Your task to perform on an android device: create a new album in the google photos Image 0: 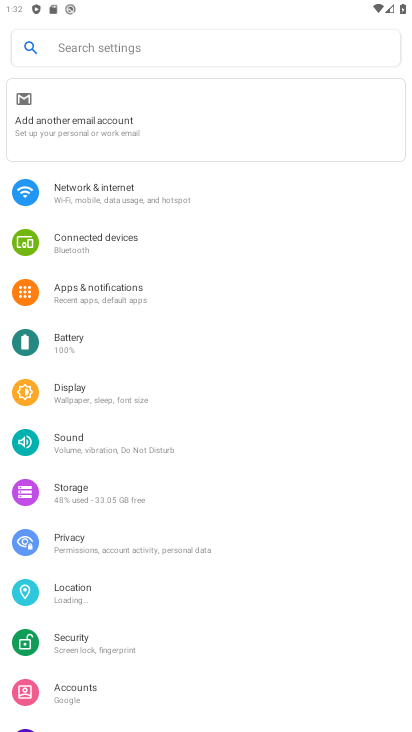
Step 0: press home button
Your task to perform on an android device: create a new album in the google photos Image 1: 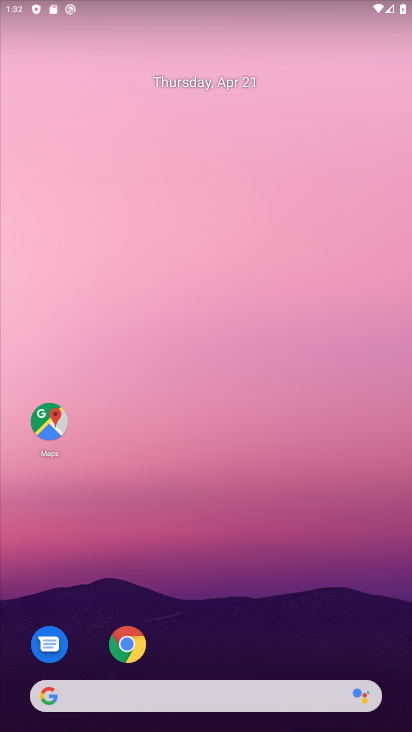
Step 1: drag from (279, 590) to (206, 94)
Your task to perform on an android device: create a new album in the google photos Image 2: 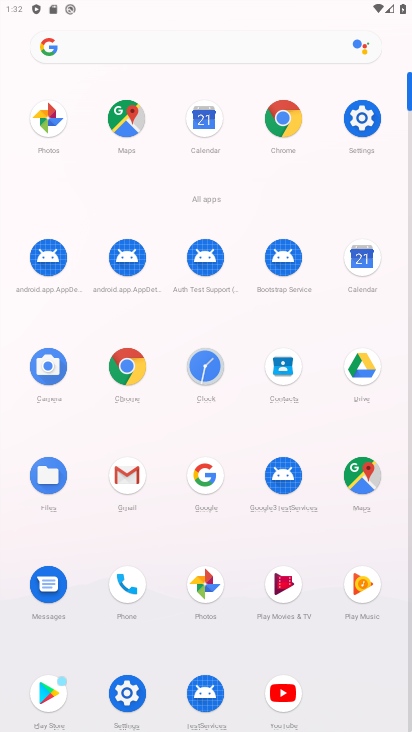
Step 2: click (51, 120)
Your task to perform on an android device: create a new album in the google photos Image 3: 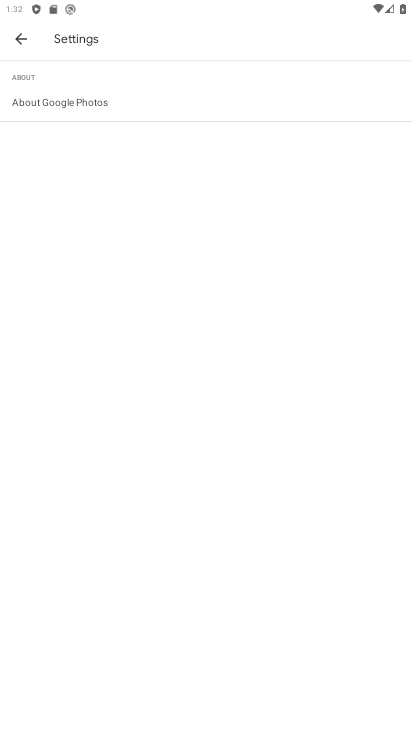
Step 3: press back button
Your task to perform on an android device: create a new album in the google photos Image 4: 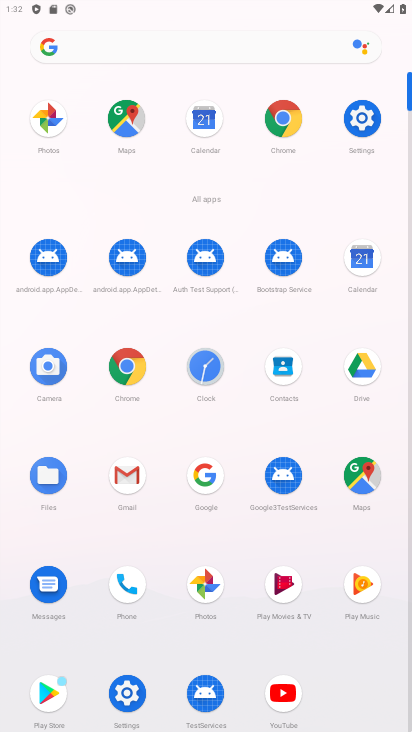
Step 4: click (47, 118)
Your task to perform on an android device: create a new album in the google photos Image 5: 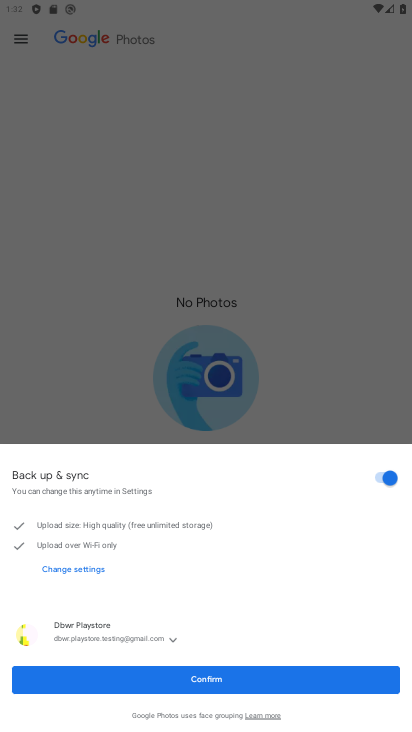
Step 5: click (207, 677)
Your task to perform on an android device: create a new album in the google photos Image 6: 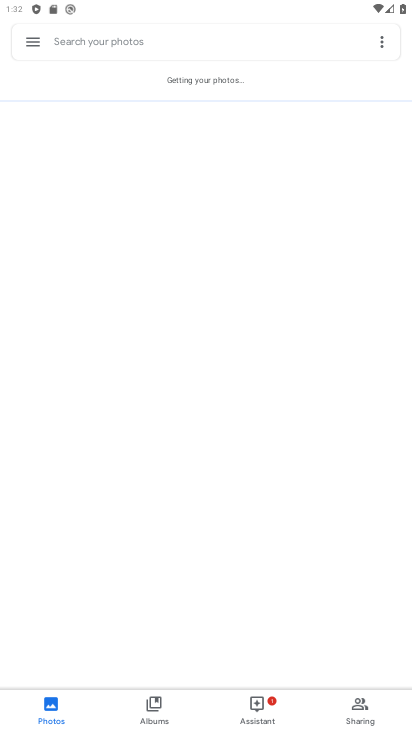
Step 6: click (161, 708)
Your task to perform on an android device: create a new album in the google photos Image 7: 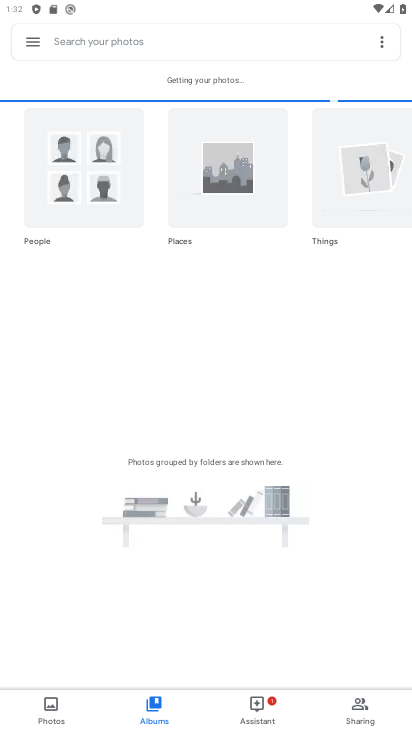
Step 7: click (277, 714)
Your task to perform on an android device: create a new album in the google photos Image 8: 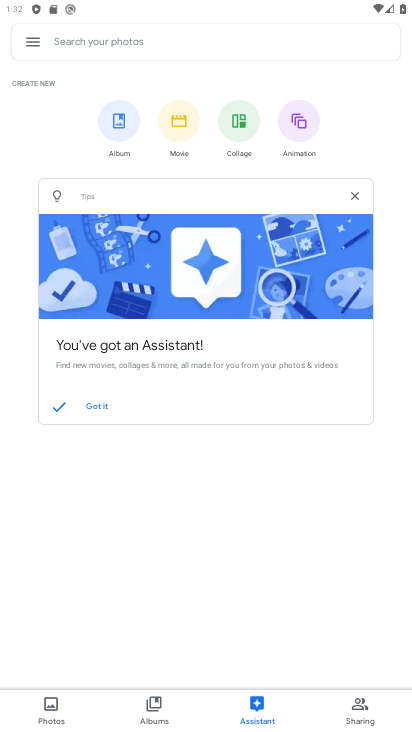
Step 8: click (120, 120)
Your task to perform on an android device: create a new album in the google photos Image 9: 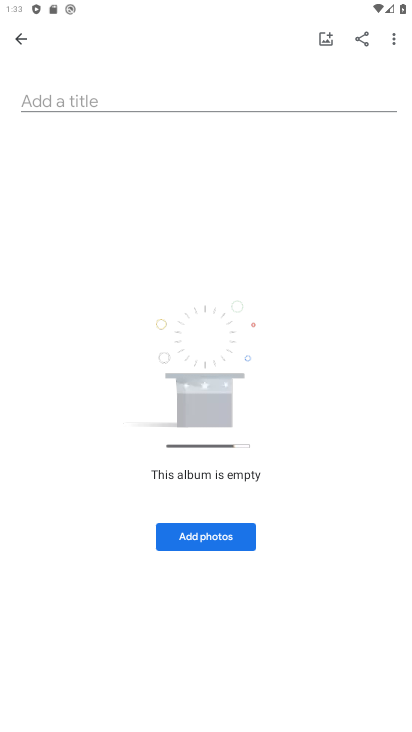
Step 9: click (169, 104)
Your task to perform on an android device: create a new album in the google photos Image 10: 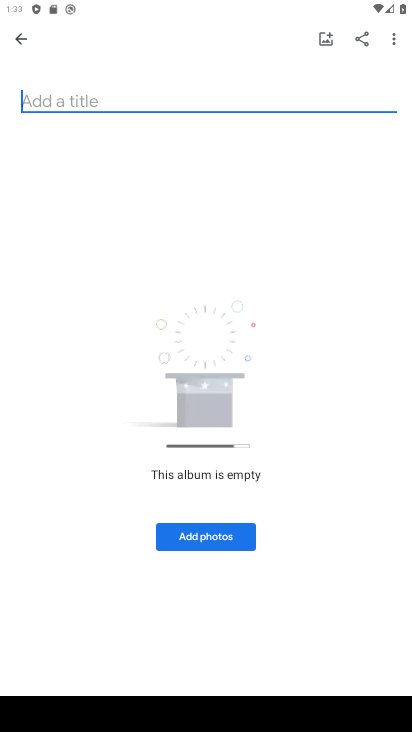
Step 10: type "gkhgkhg"
Your task to perform on an android device: create a new album in the google photos Image 11: 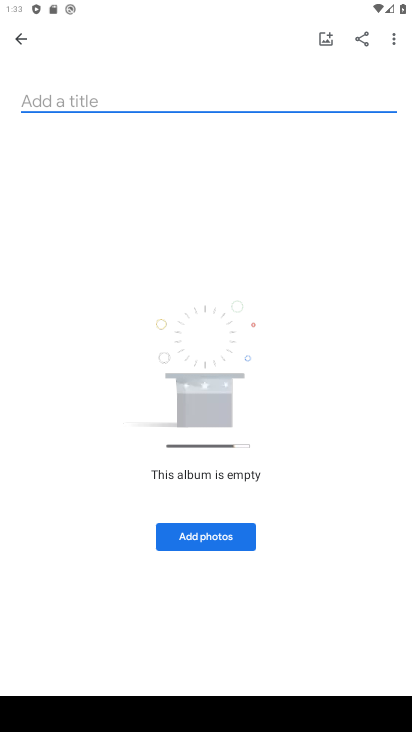
Step 11: click (237, 537)
Your task to perform on an android device: create a new album in the google photos Image 12: 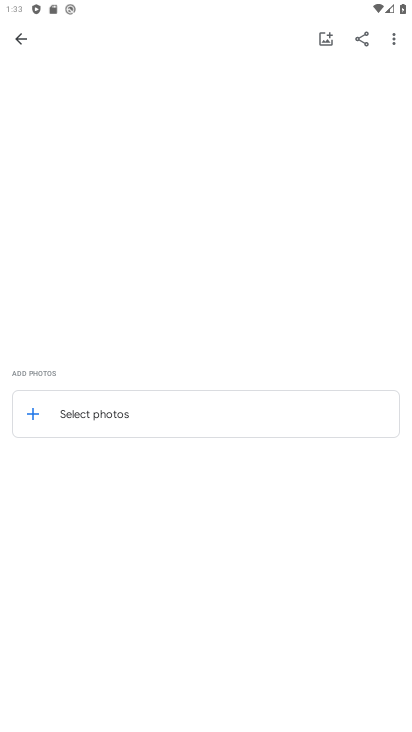
Step 12: click (178, 417)
Your task to perform on an android device: create a new album in the google photos Image 13: 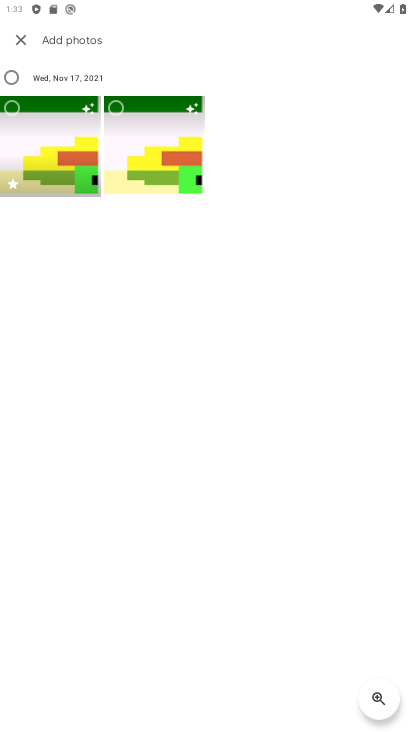
Step 13: click (147, 175)
Your task to perform on an android device: create a new album in the google photos Image 14: 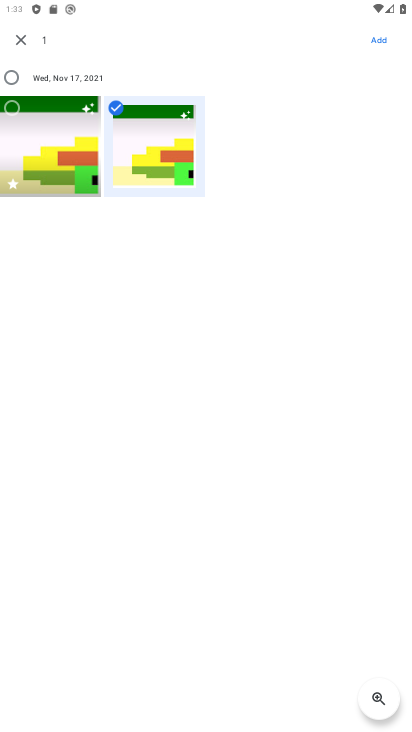
Step 14: click (47, 144)
Your task to perform on an android device: create a new album in the google photos Image 15: 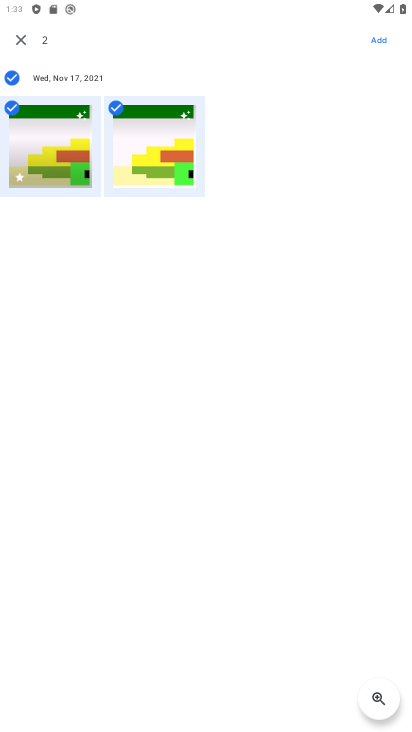
Step 15: click (379, 44)
Your task to perform on an android device: create a new album in the google photos Image 16: 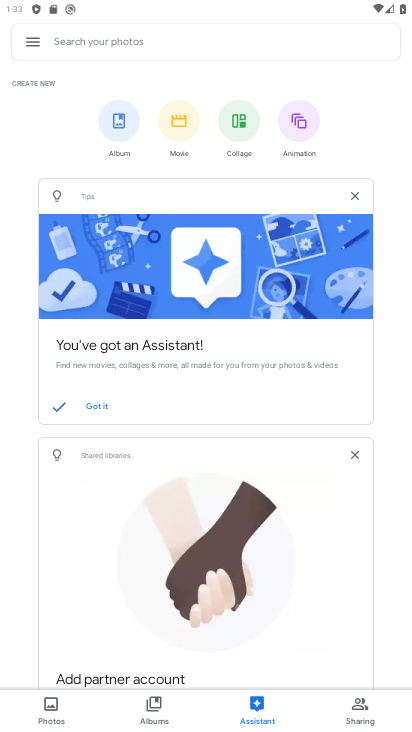
Step 16: task complete